Your task to perform on an android device: toggle wifi Image 0: 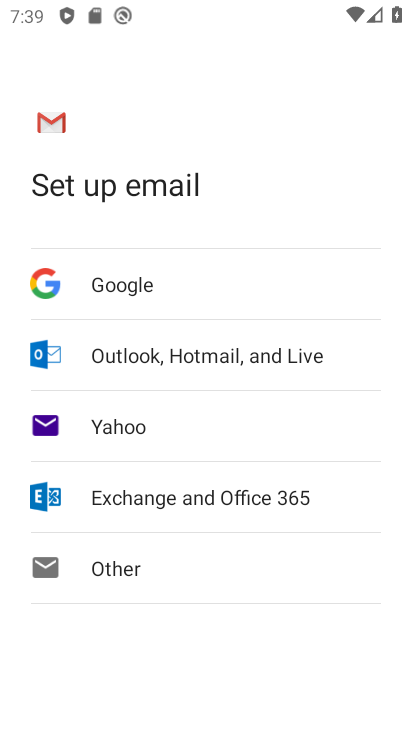
Step 0: press home button
Your task to perform on an android device: toggle wifi Image 1: 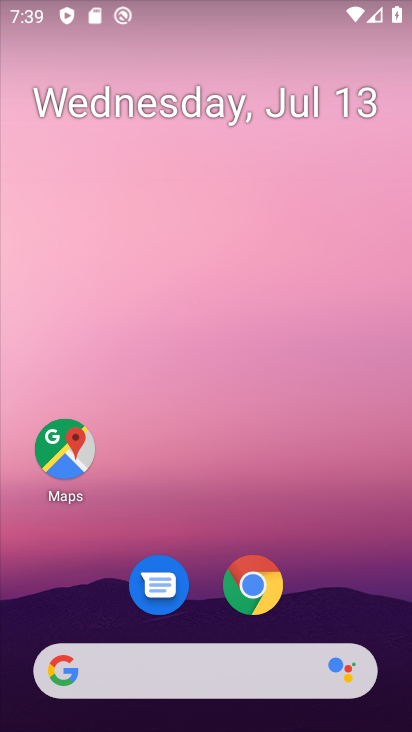
Step 1: drag from (329, 523) to (277, 53)
Your task to perform on an android device: toggle wifi Image 2: 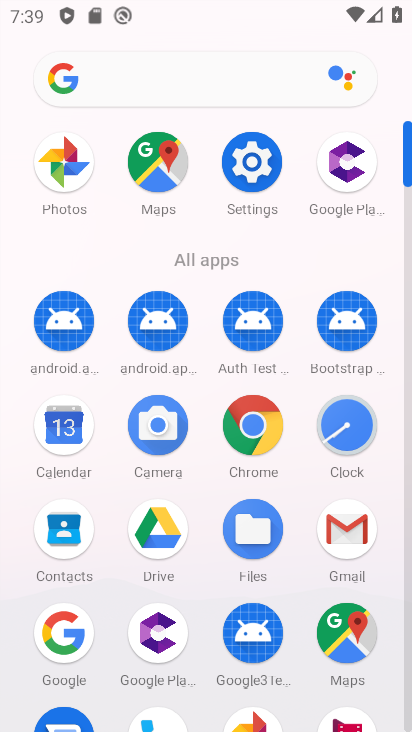
Step 2: click (260, 178)
Your task to perform on an android device: toggle wifi Image 3: 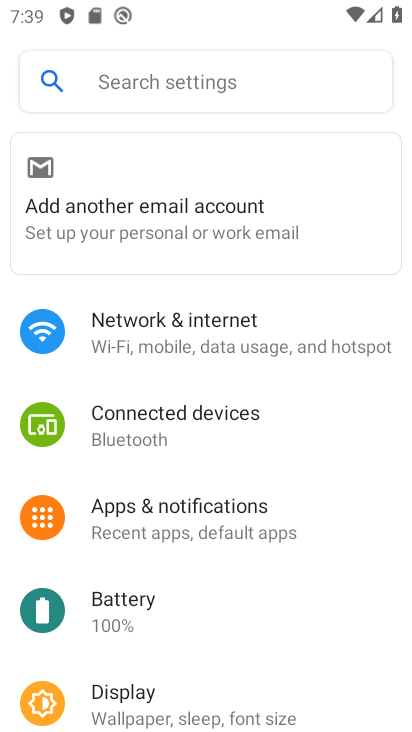
Step 3: click (251, 339)
Your task to perform on an android device: toggle wifi Image 4: 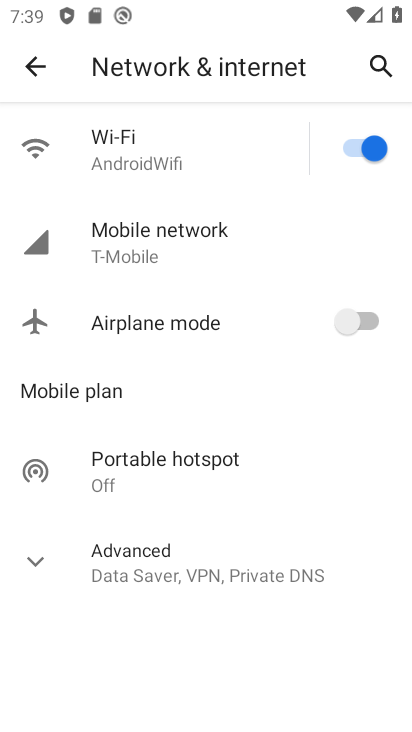
Step 4: click (359, 149)
Your task to perform on an android device: toggle wifi Image 5: 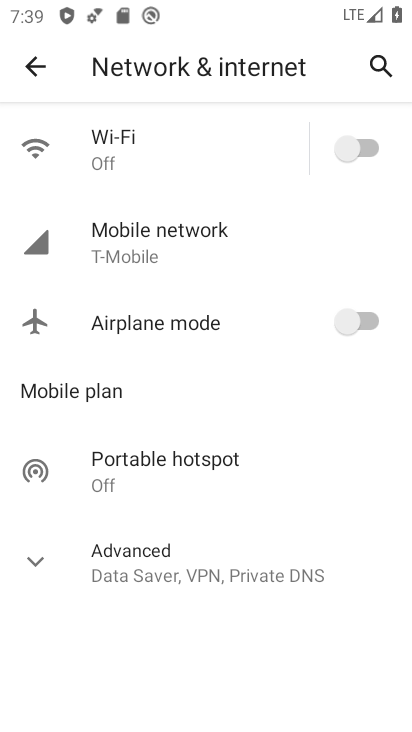
Step 5: task complete